Your task to perform on an android device: Go to network settings Image 0: 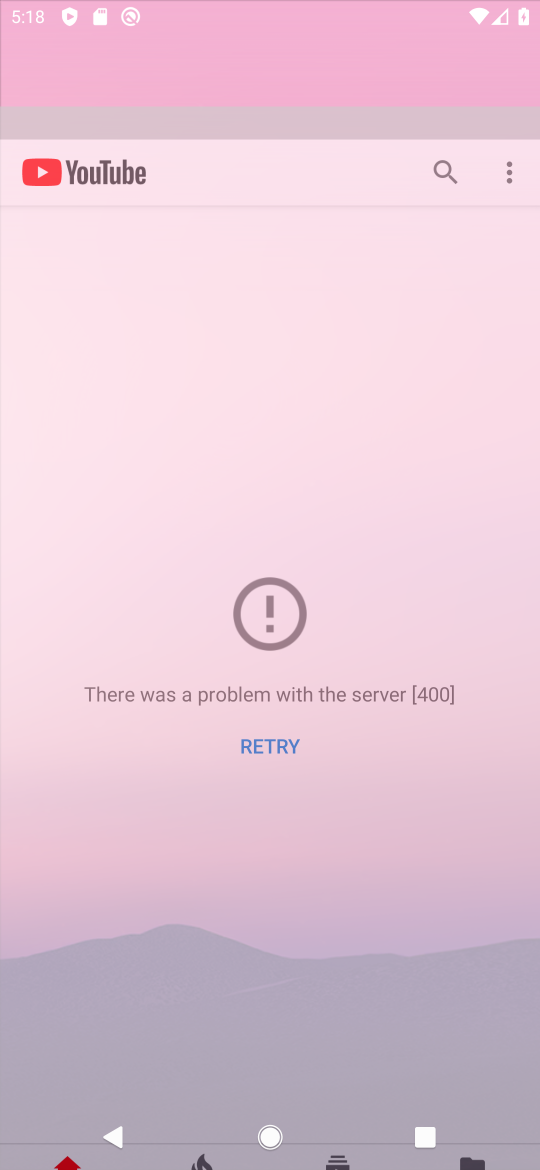
Step 0: click (372, 915)
Your task to perform on an android device: Go to network settings Image 1: 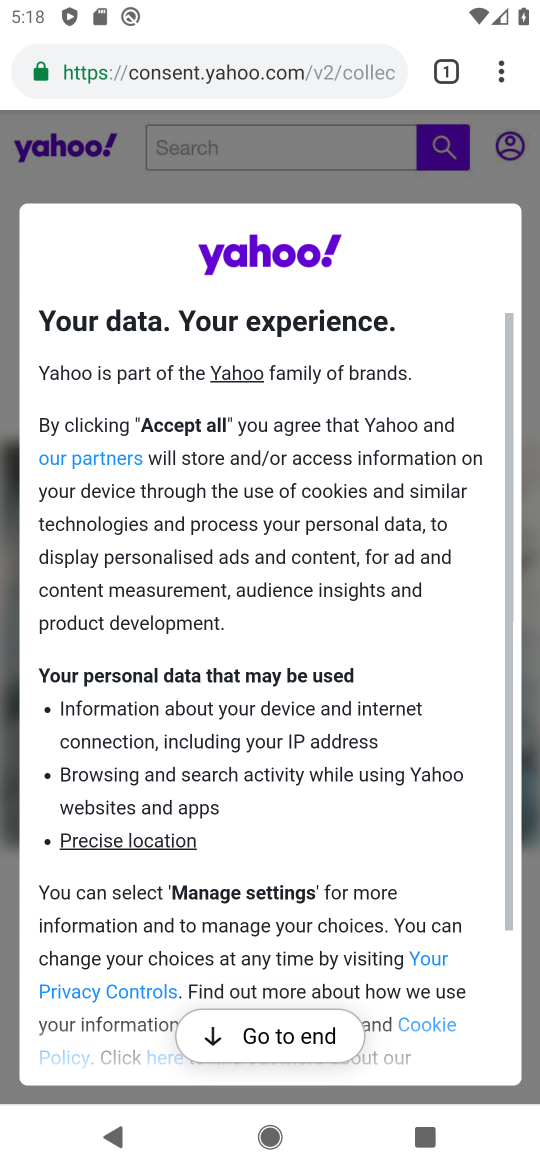
Step 1: press home button
Your task to perform on an android device: Go to network settings Image 2: 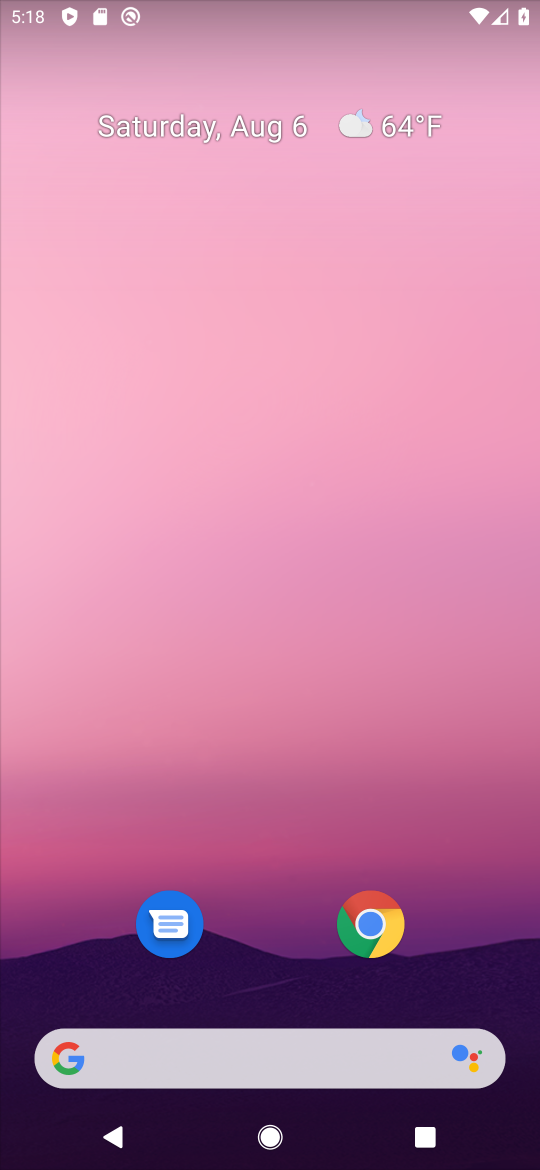
Step 2: drag from (259, 882) to (277, 202)
Your task to perform on an android device: Go to network settings Image 3: 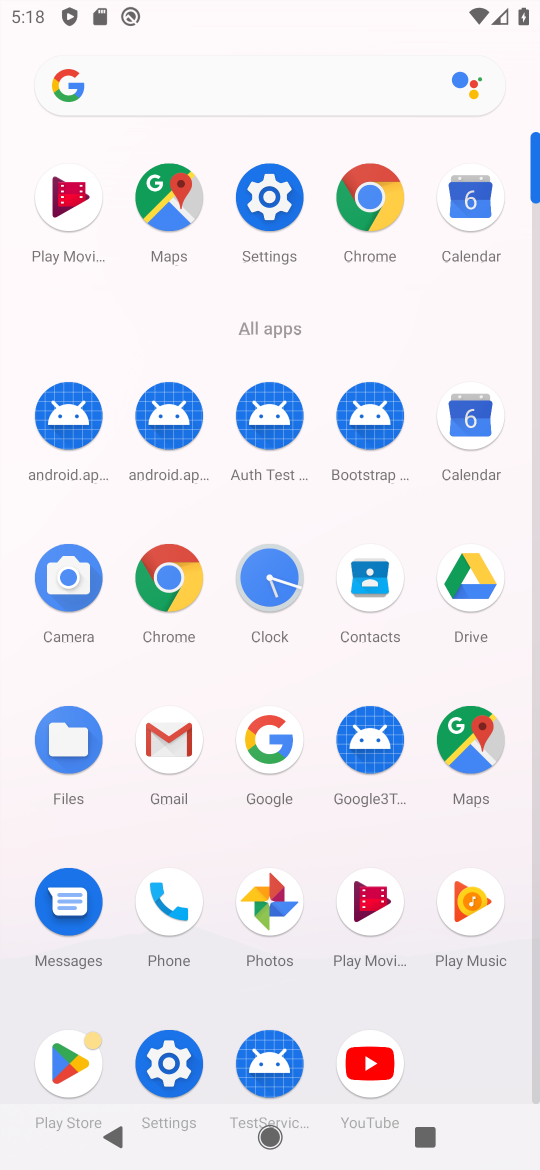
Step 3: click (269, 200)
Your task to perform on an android device: Go to network settings Image 4: 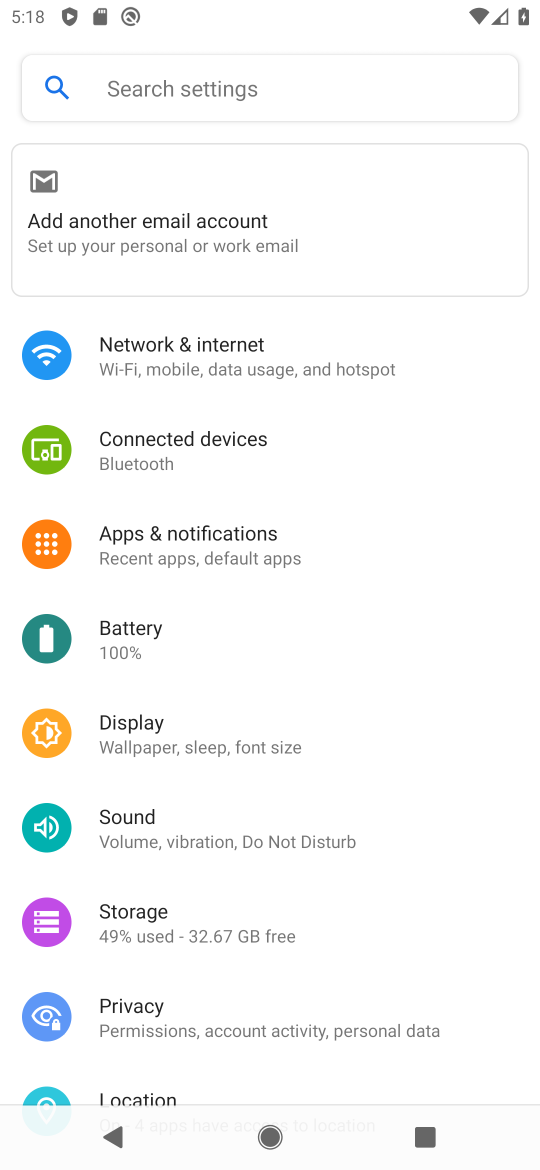
Step 4: click (214, 337)
Your task to perform on an android device: Go to network settings Image 5: 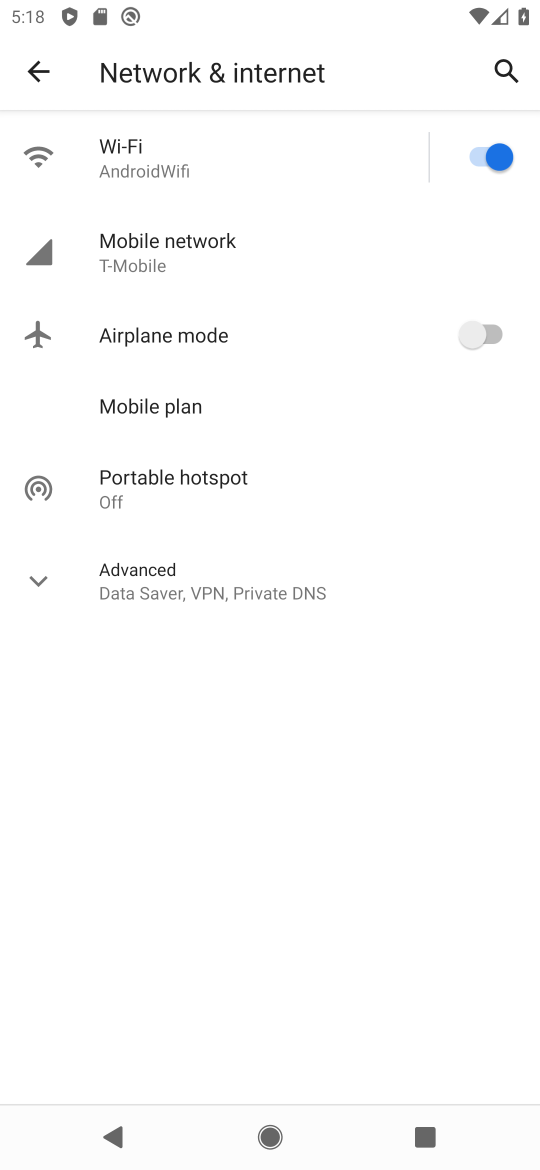
Step 5: task complete